Your task to perform on an android device: toggle airplane mode Image 0: 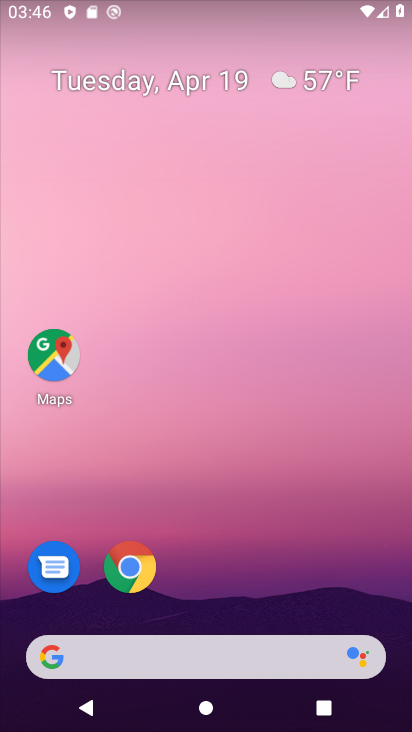
Step 0: drag from (340, 577) to (360, 245)
Your task to perform on an android device: toggle airplane mode Image 1: 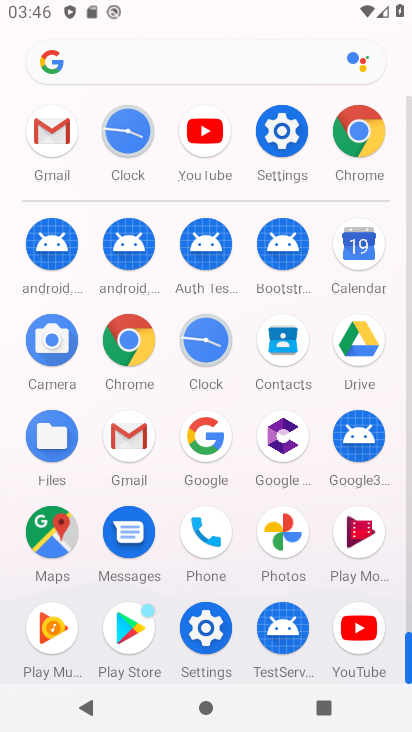
Step 1: click (280, 140)
Your task to perform on an android device: toggle airplane mode Image 2: 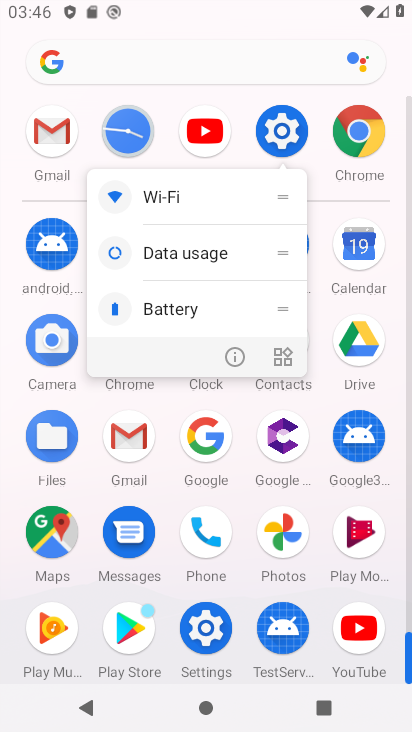
Step 2: click (280, 140)
Your task to perform on an android device: toggle airplane mode Image 3: 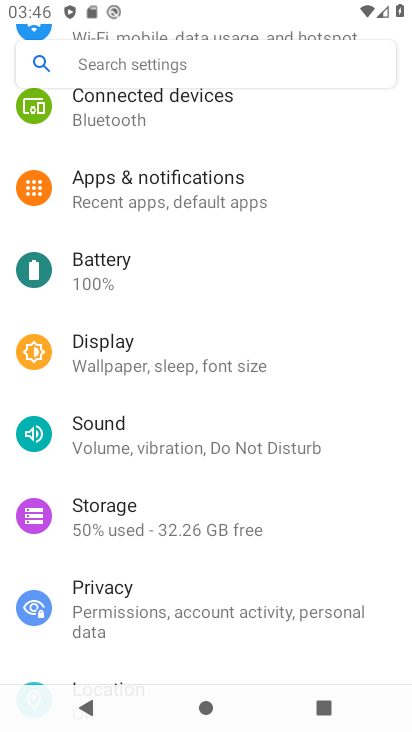
Step 3: drag from (377, 370) to (373, 466)
Your task to perform on an android device: toggle airplane mode Image 4: 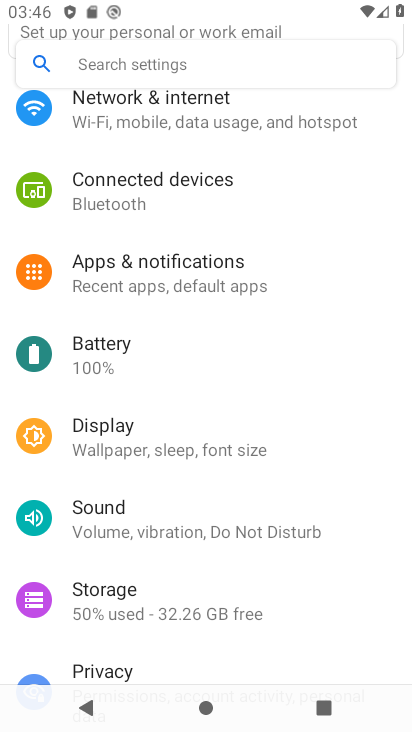
Step 4: drag from (372, 360) to (370, 470)
Your task to perform on an android device: toggle airplane mode Image 5: 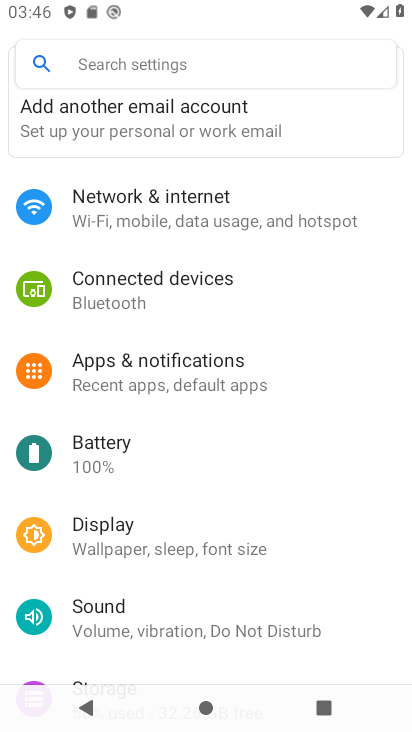
Step 5: drag from (372, 337) to (373, 464)
Your task to perform on an android device: toggle airplane mode Image 6: 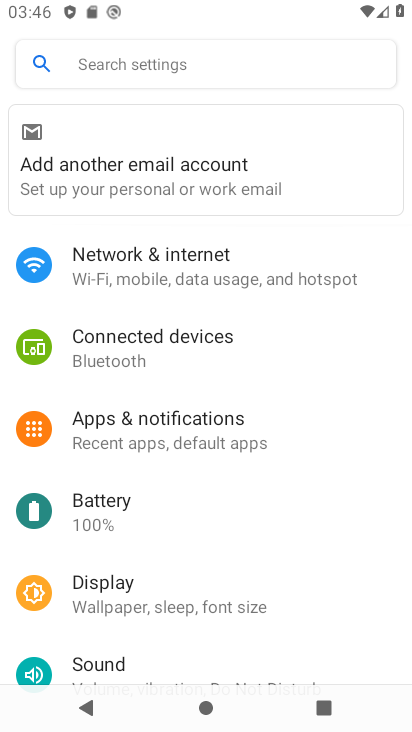
Step 6: click (272, 273)
Your task to perform on an android device: toggle airplane mode Image 7: 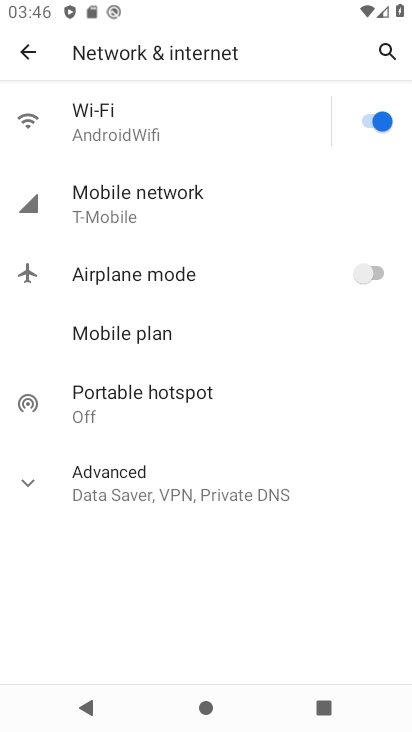
Step 7: click (361, 267)
Your task to perform on an android device: toggle airplane mode Image 8: 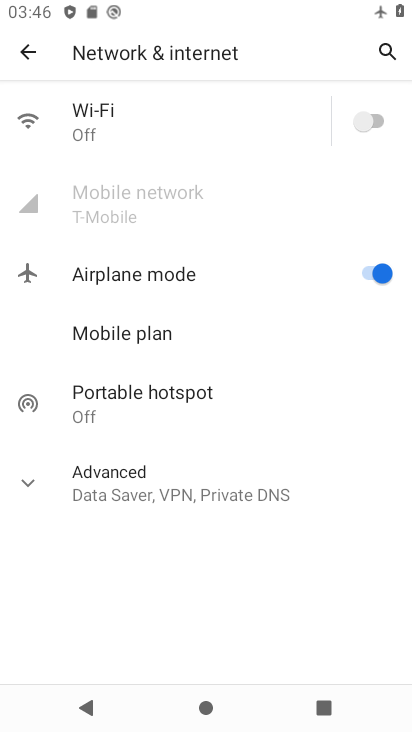
Step 8: task complete